Your task to perform on an android device: Toggle the flashlight Image 0: 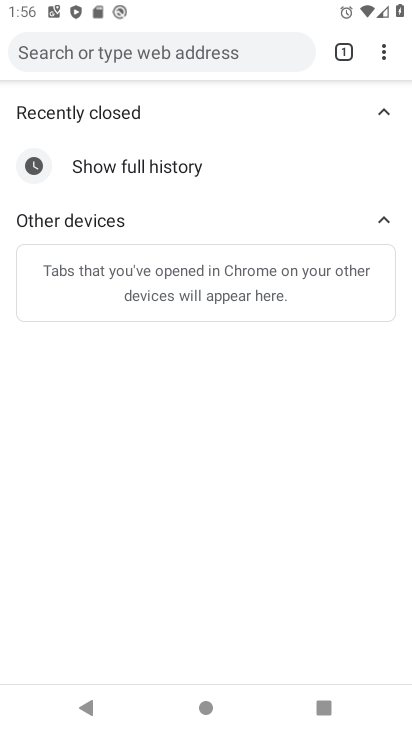
Step 0: press home button
Your task to perform on an android device: Toggle the flashlight Image 1: 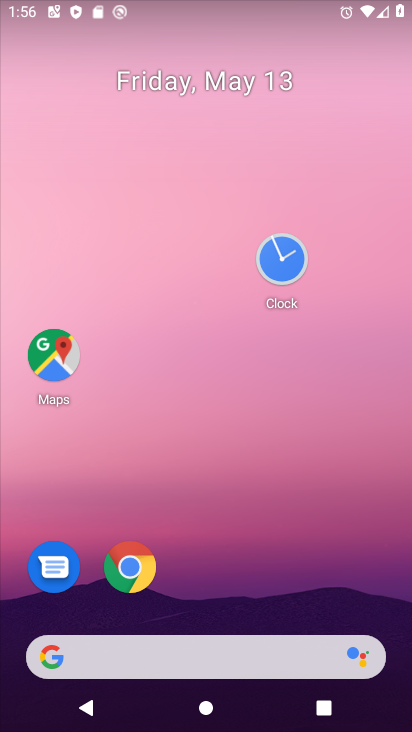
Step 1: drag from (278, 554) to (283, 187)
Your task to perform on an android device: Toggle the flashlight Image 2: 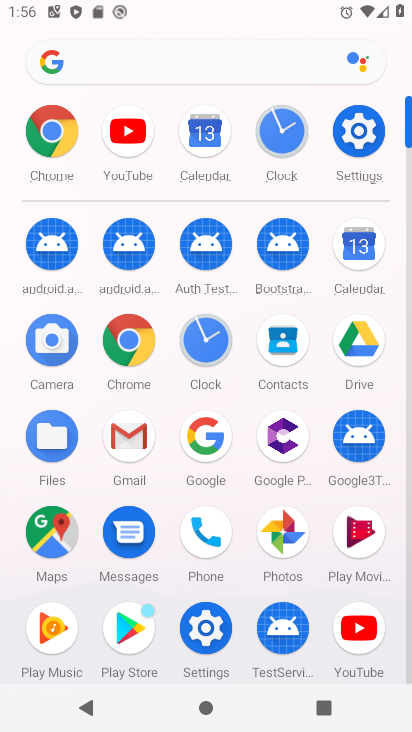
Step 2: click (372, 157)
Your task to perform on an android device: Toggle the flashlight Image 3: 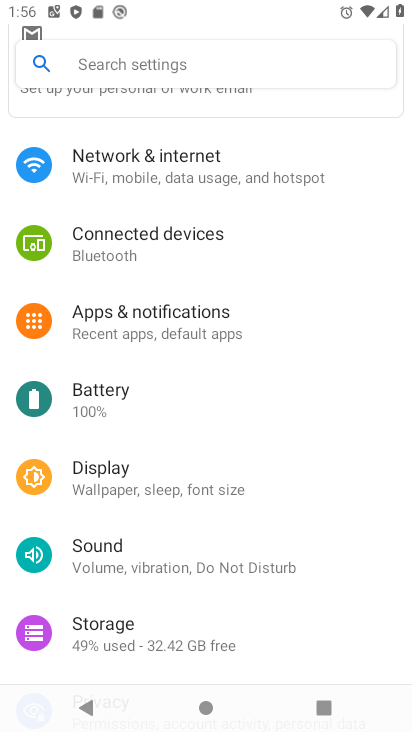
Step 3: drag from (195, 331) to (209, 581)
Your task to perform on an android device: Toggle the flashlight Image 4: 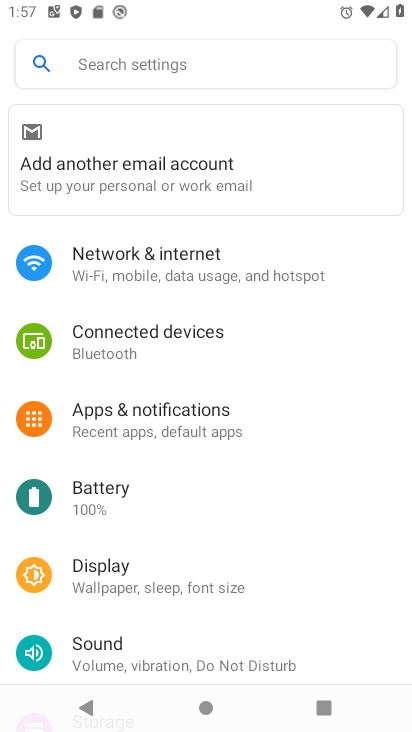
Step 4: click (144, 246)
Your task to perform on an android device: Toggle the flashlight Image 5: 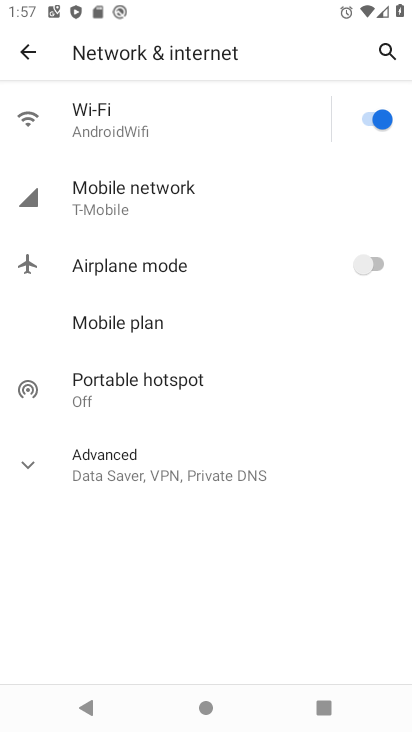
Step 5: task complete